Your task to perform on an android device: turn on bluetooth scan Image 0: 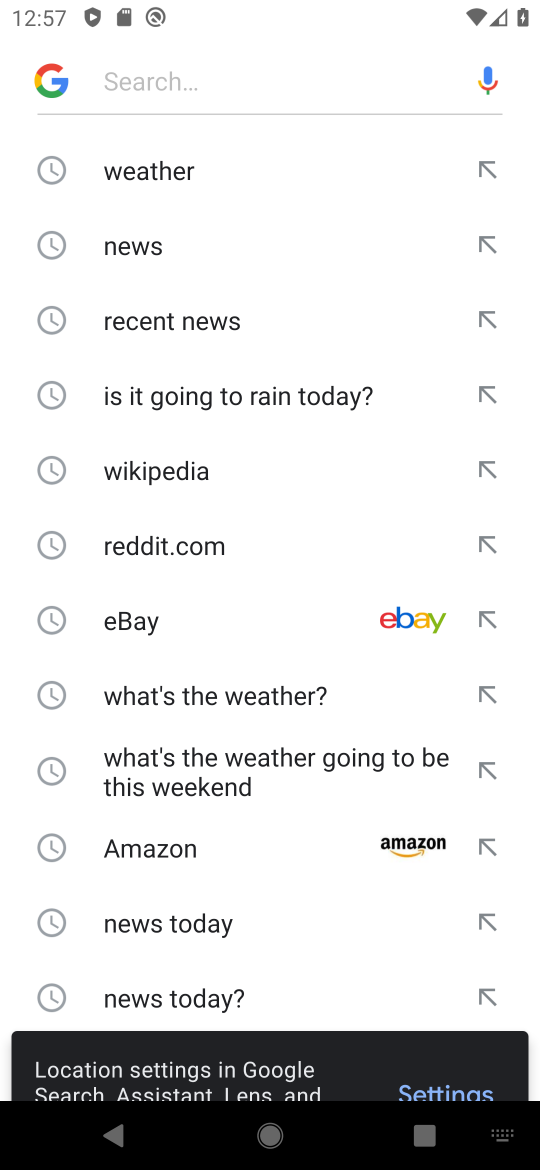
Step 0: press home button
Your task to perform on an android device: turn on bluetooth scan Image 1: 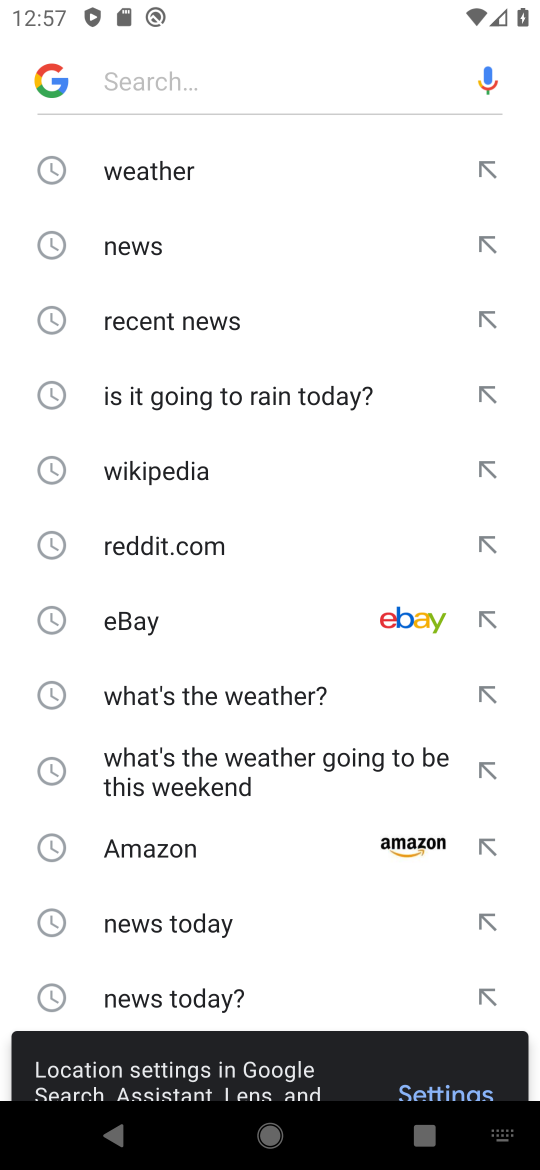
Step 1: click (317, 302)
Your task to perform on an android device: turn on bluetooth scan Image 2: 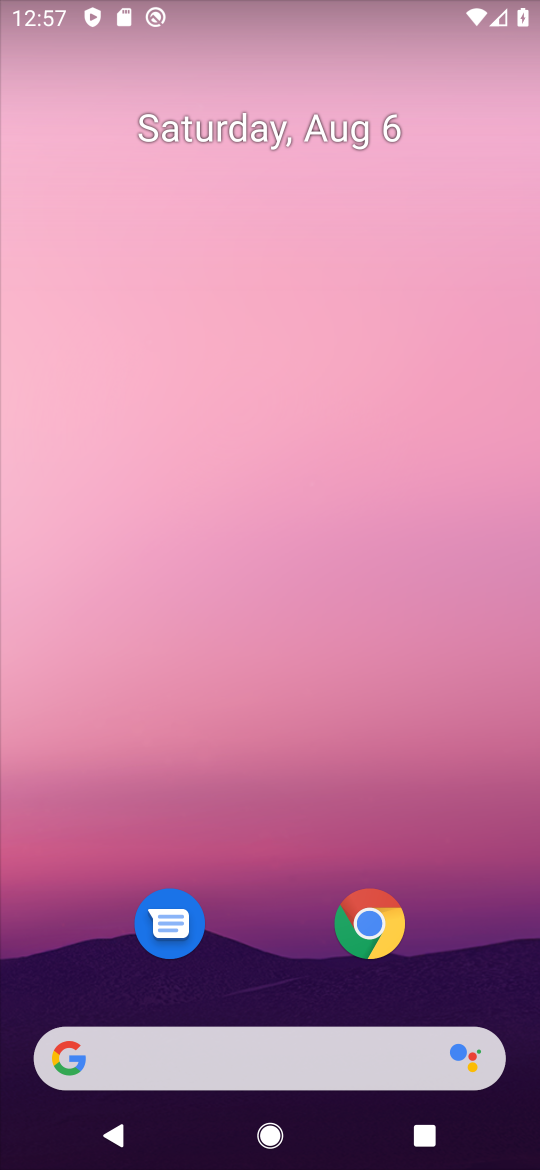
Step 2: drag from (263, 987) to (386, 10)
Your task to perform on an android device: turn on bluetooth scan Image 3: 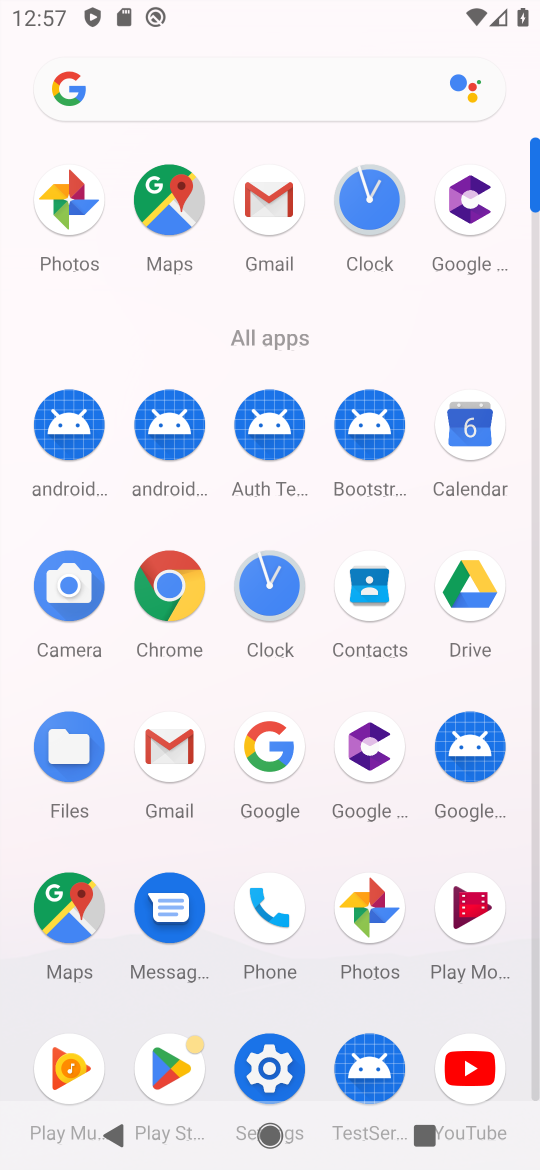
Step 3: click (251, 1065)
Your task to perform on an android device: turn on bluetooth scan Image 4: 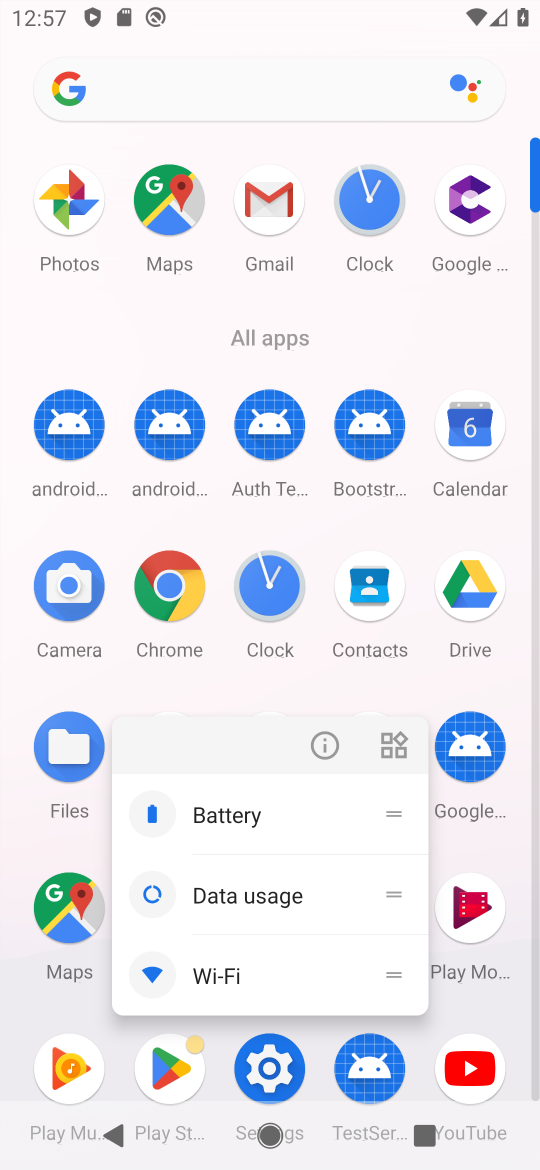
Step 4: click (319, 745)
Your task to perform on an android device: turn on bluetooth scan Image 5: 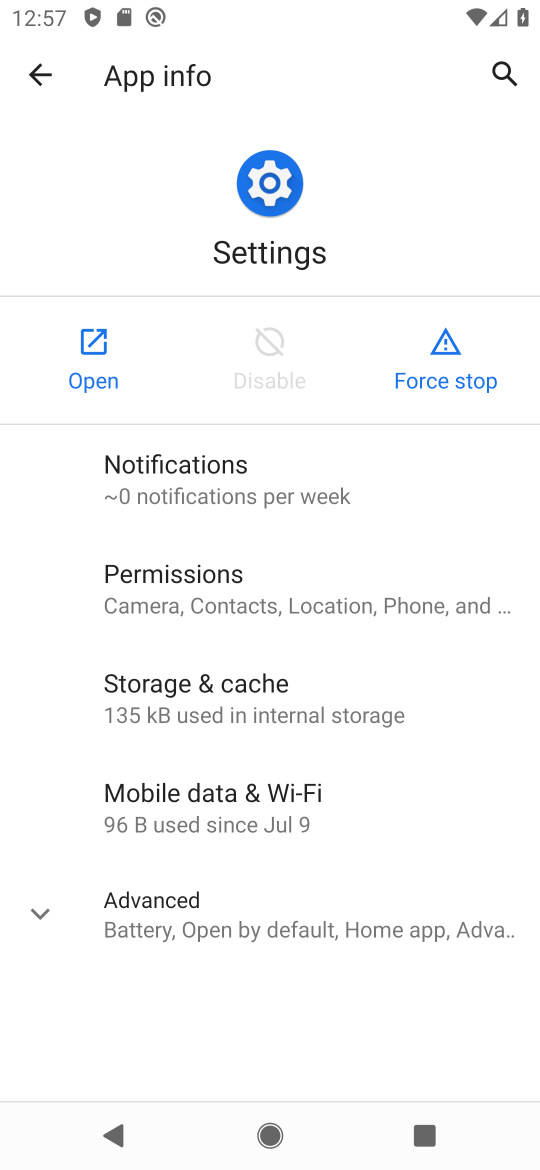
Step 5: click (59, 346)
Your task to perform on an android device: turn on bluetooth scan Image 6: 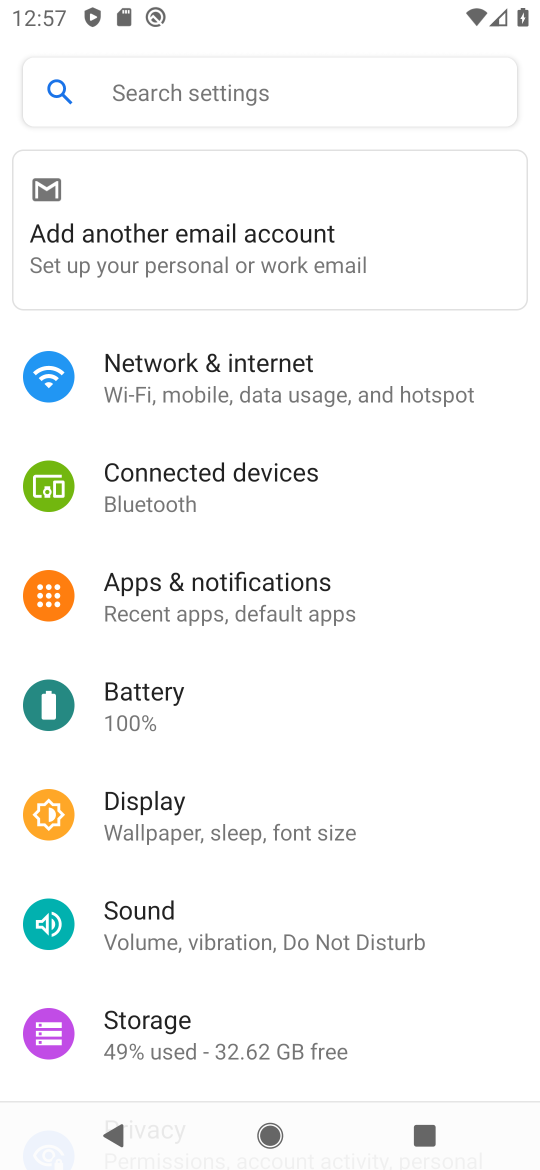
Step 6: drag from (248, 903) to (326, 354)
Your task to perform on an android device: turn on bluetooth scan Image 7: 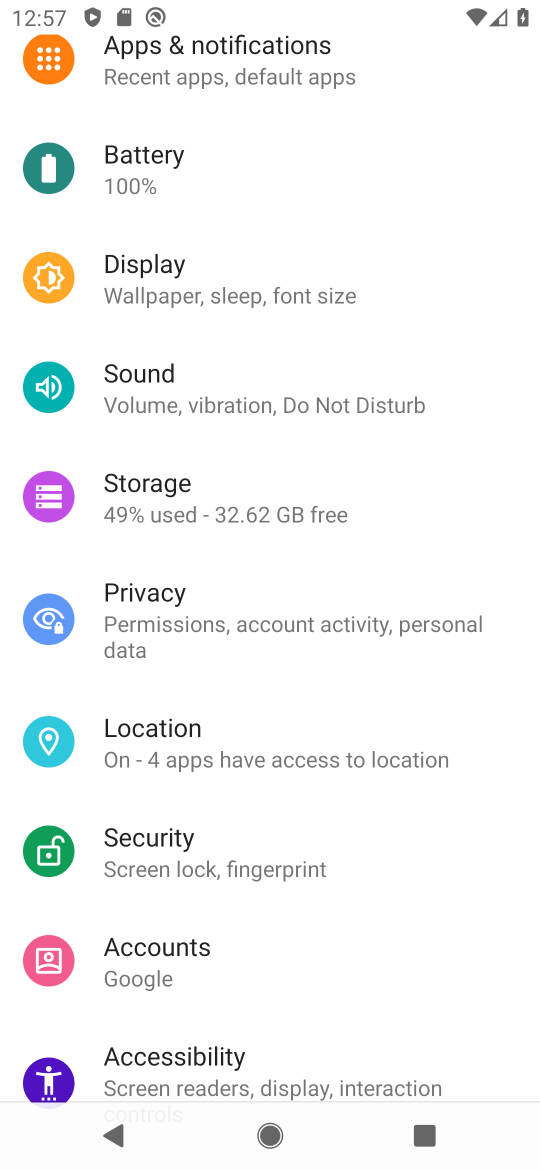
Step 7: drag from (246, 139) to (371, 880)
Your task to perform on an android device: turn on bluetooth scan Image 8: 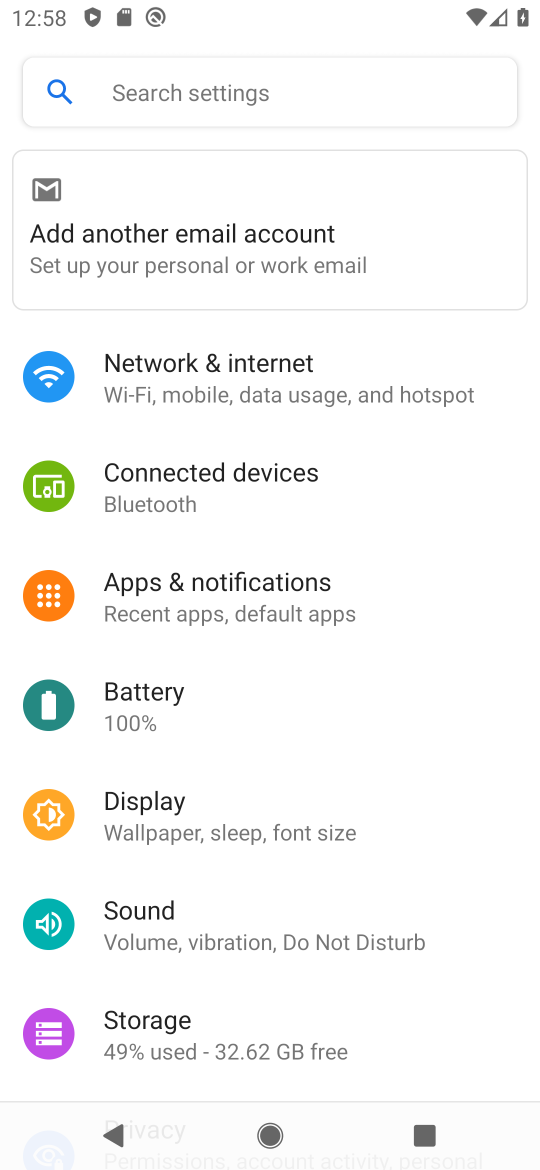
Step 8: drag from (284, 998) to (376, 312)
Your task to perform on an android device: turn on bluetooth scan Image 9: 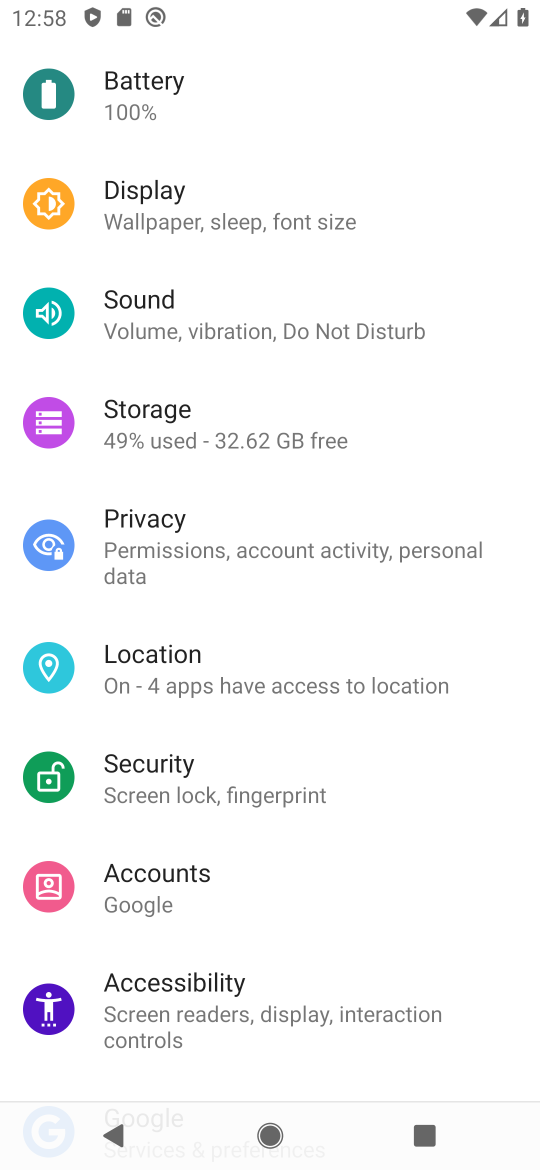
Step 9: click (189, 675)
Your task to perform on an android device: turn on bluetooth scan Image 10: 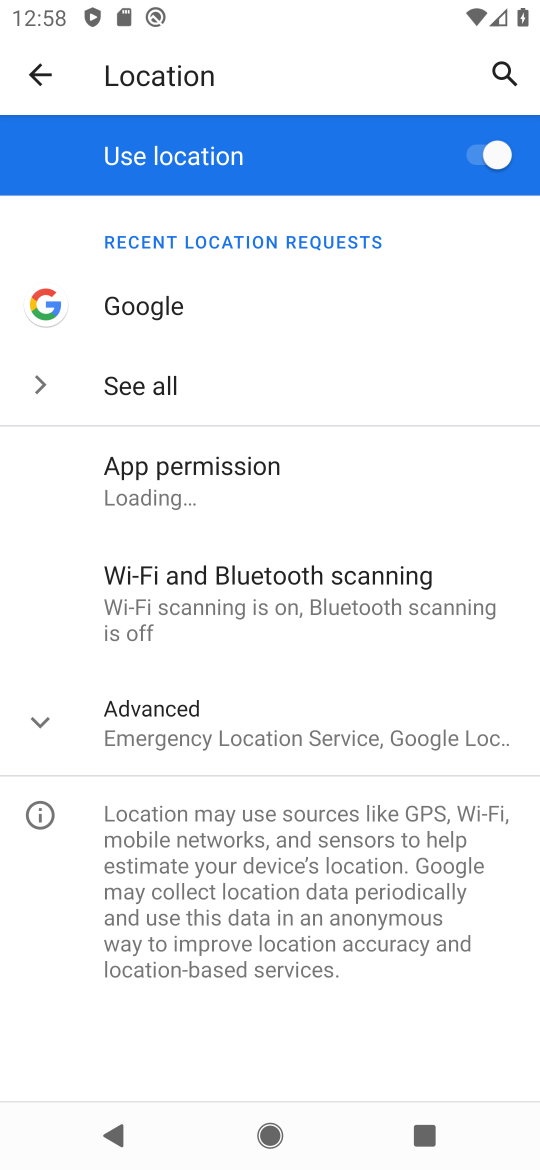
Step 10: drag from (236, 946) to (357, 412)
Your task to perform on an android device: turn on bluetooth scan Image 11: 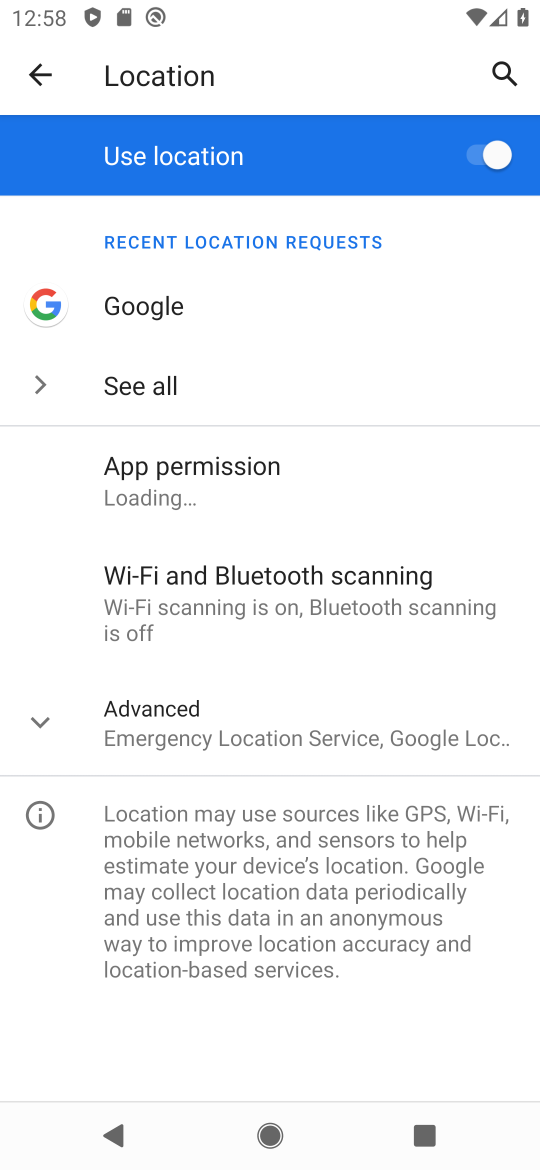
Step 11: click (234, 612)
Your task to perform on an android device: turn on bluetooth scan Image 12: 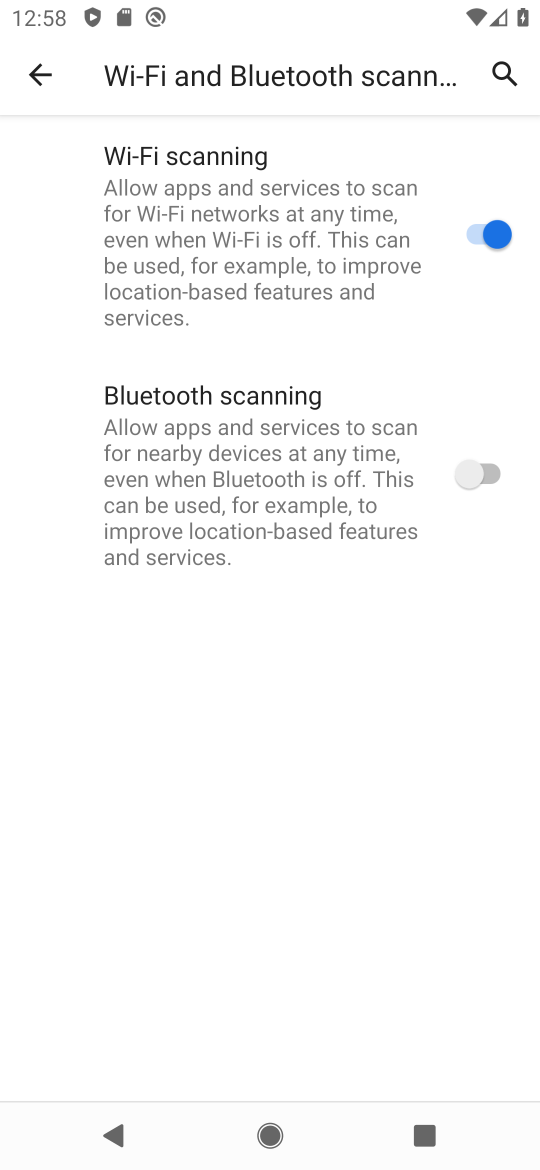
Step 12: click (372, 501)
Your task to perform on an android device: turn on bluetooth scan Image 13: 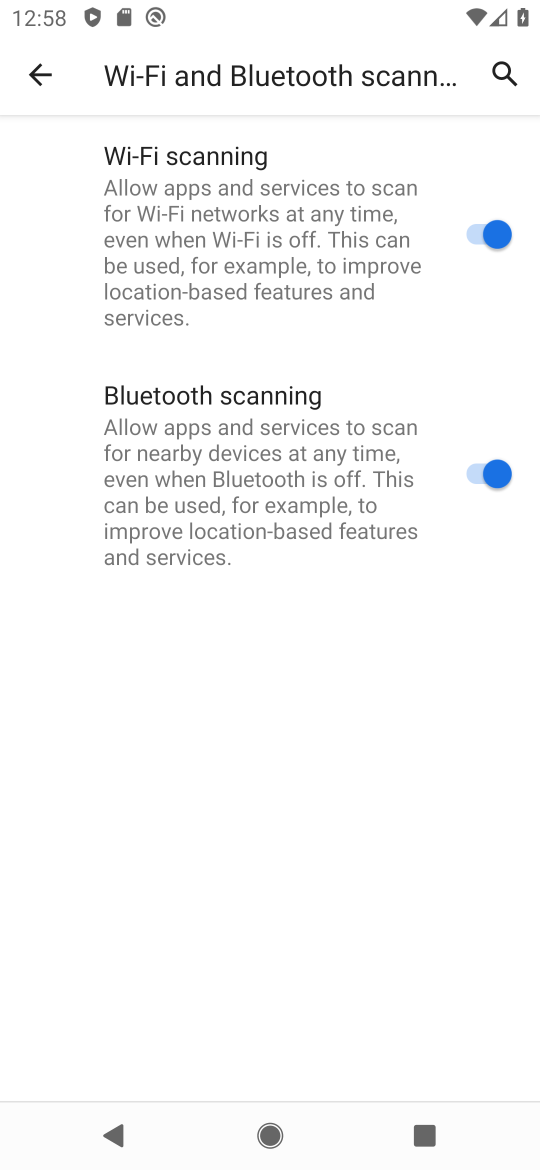
Step 13: task complete